Your task to perform on an android device: create a new album in the google photos Image 0: 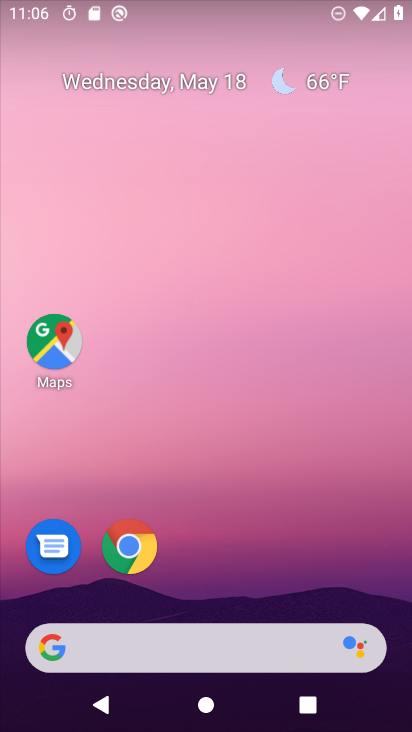
Step 0: drag from (178, 605) to (165, 47)
Your task to perform on an android device: create a new album in the google photos Image 1: 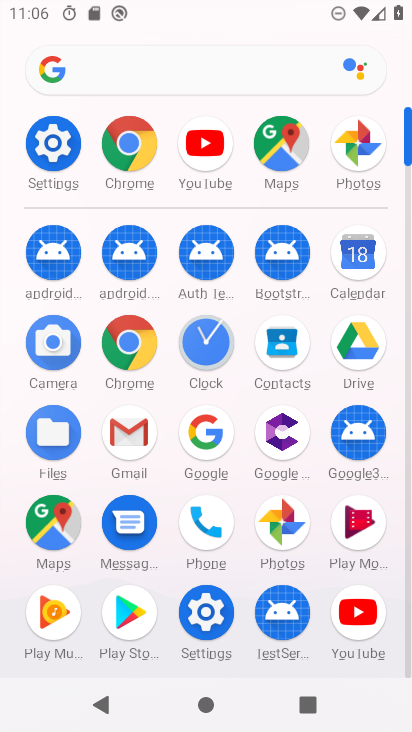
Step 1: click (360, 137)
Your task to perform on an android device: create a new album in the google photos Image 2: 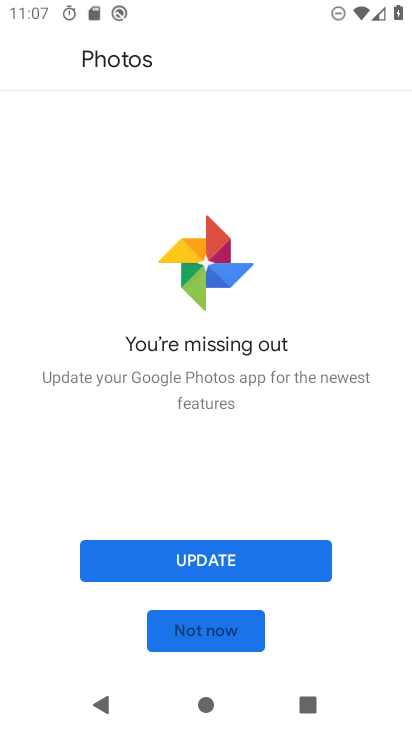
Step 2: click (186, 626)
Your task to perform on an android device: create a new album in the google photos Image 3: 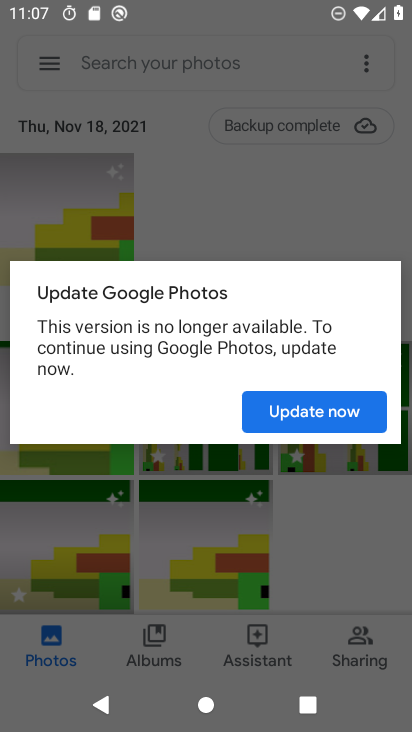
Step 3: click (310, 416)
Your task to perform on an android device: create a new album in the google photos Image 4: 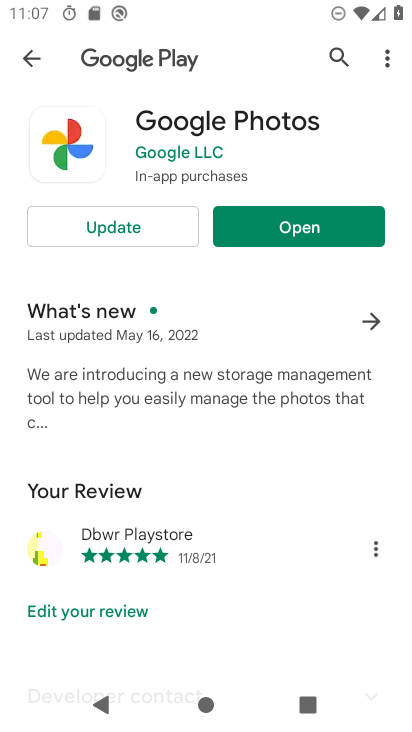
Step 4: click (283, 238)
Your task to perform on an android device: create a new album in the google photos Image 5: 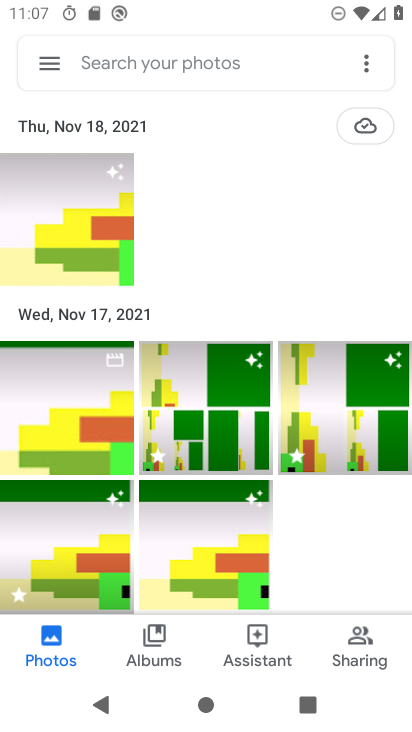
Step 5: click (187, 380)
Your task to perform on an android device: create a new album in the google photos Image 6: 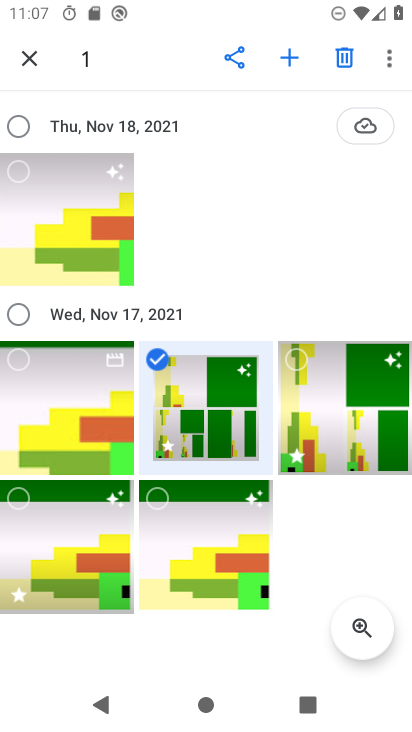
Step 6: click (298, 355)
Your task to perform on an android device: create a new album in the google photos Image 7: 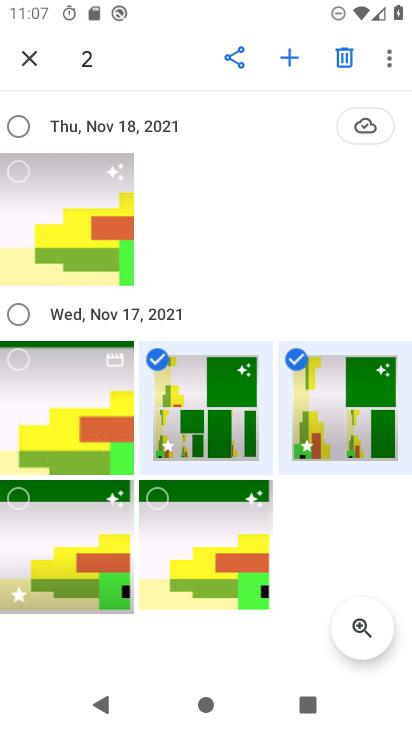
Step 7: click (291, 66)
Your task to perform on an android device: create a new album in the google photos Image 8: 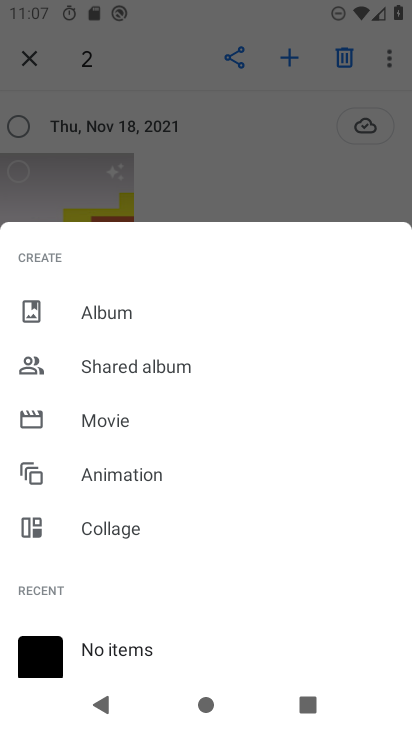
Step 8: click (114, 310)
Your task to perform on an android device: create a new album in the google photos Image 9: 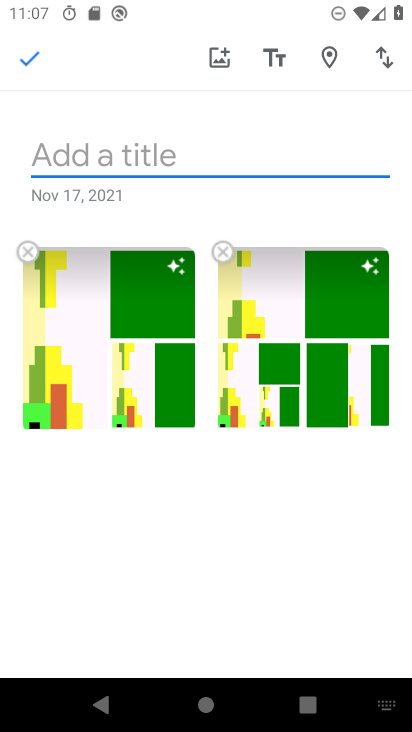
Step 9: type ",mnb"
Your task to perform on an android device: create a new album in the google photos Image 10: 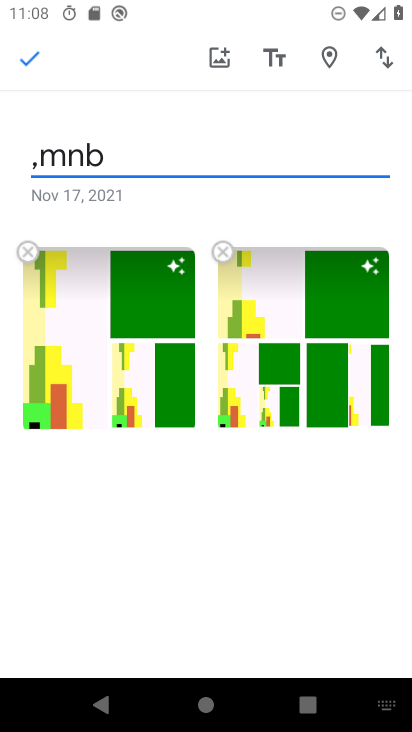
Step 10: click (28, 74)
Your task to perform on an android device: create a new album in the google photos Image 11: 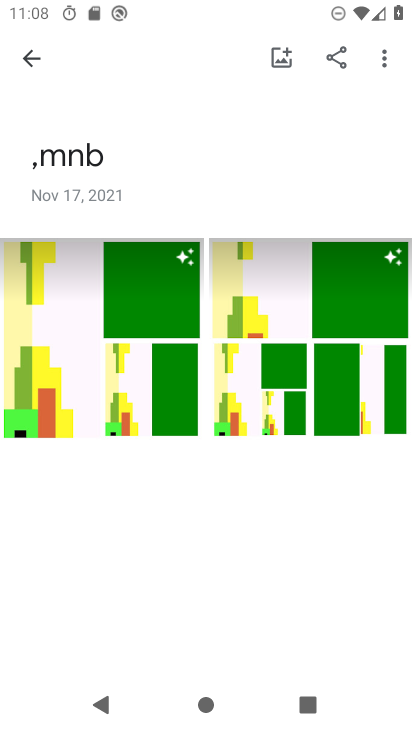
Step 11: task complete